Your task to perform on an android device: change the clock style Image 0: 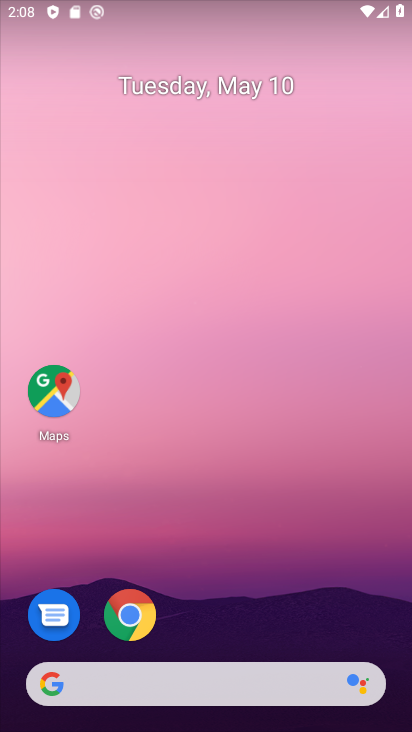
Step 0: drag from (287, 618) to (251, 351)
Your task to perform on an android device: change the clock style Image 1: 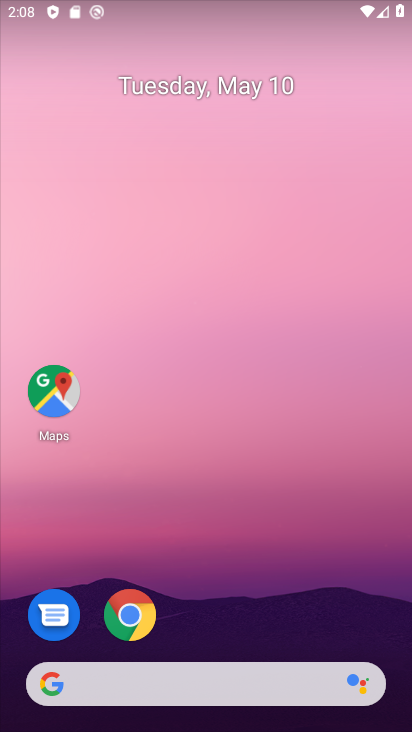
Step 1: drag from (251, 351) to (218, 139)
Your task to perform on an android device: change the clock style Image 2: 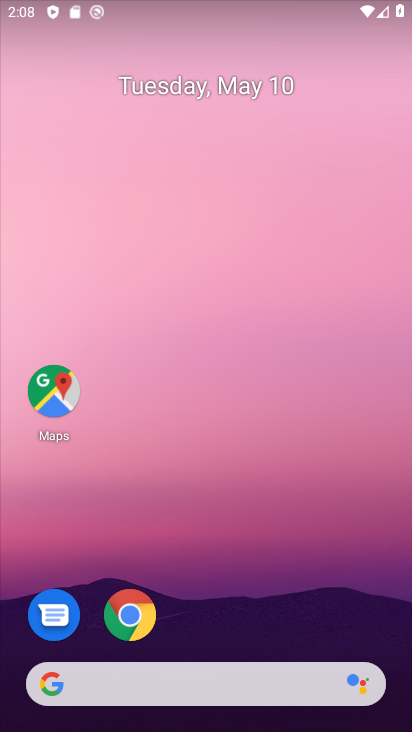
Step 2: drag from (256, 608) to (297, 61)
Your task to perform on an android device: change the clock style Image 3: 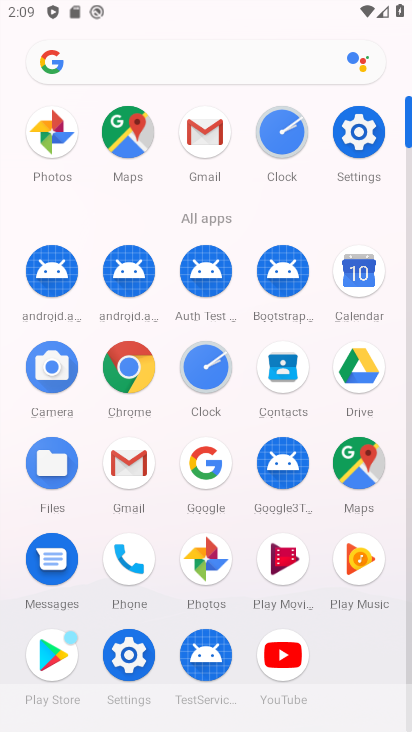
Step 3: click (279, 124)
Your task to perform on an android device: change the clock style Image 4: 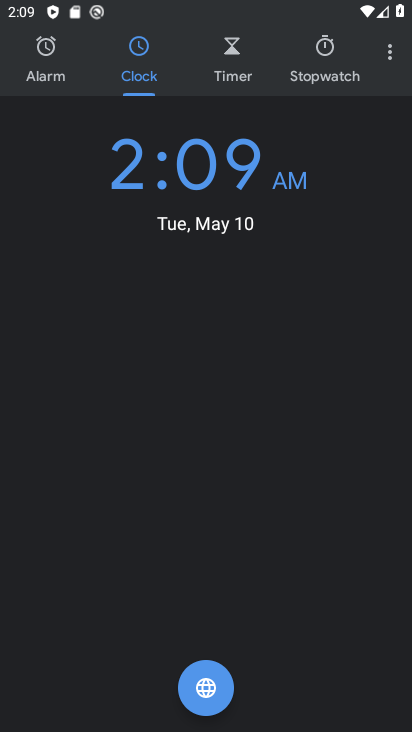
Step 4: click (385, 39)
Your task to perform on an android device: change the clock style Image 5: 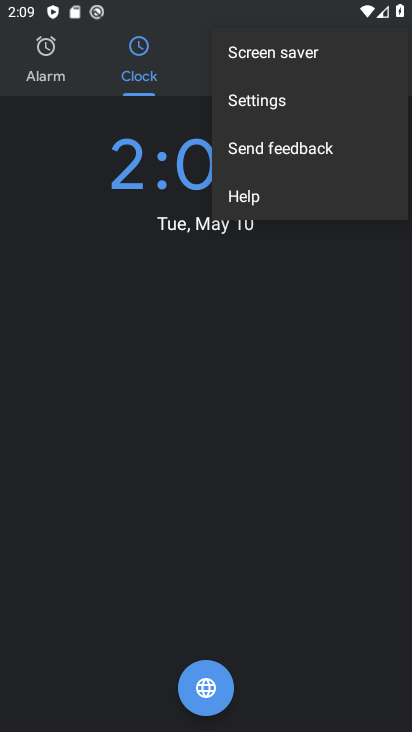
Step 5: click (299, 114)
Your task to perform on an android device: change the clock style Image 6: 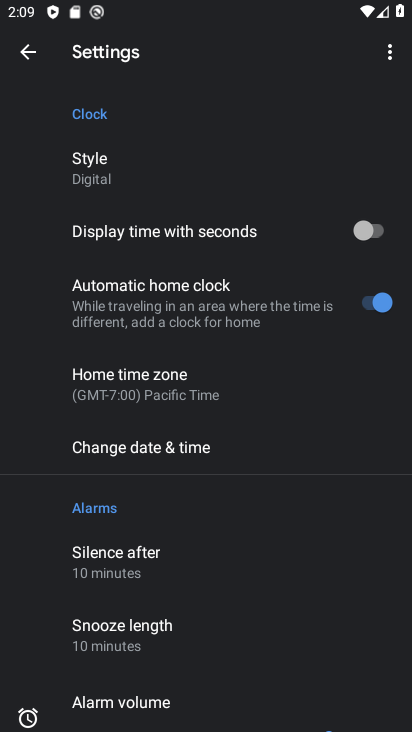
Step 6: click (183, 178)
Your task to perform on an android device: change the clock style Image 7: 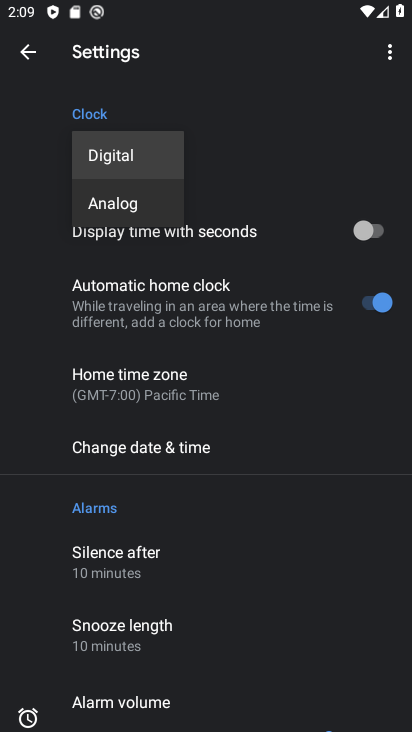
Step 7: click (179, 214)
Your task to perform on an android device: change the clock style Image 8: 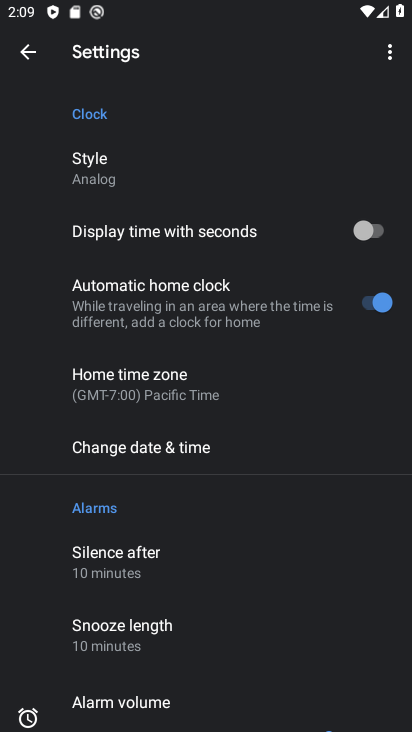
Step 8: task complete